Your task to perform on an android device: delete a single message in the gmail app Image 0: 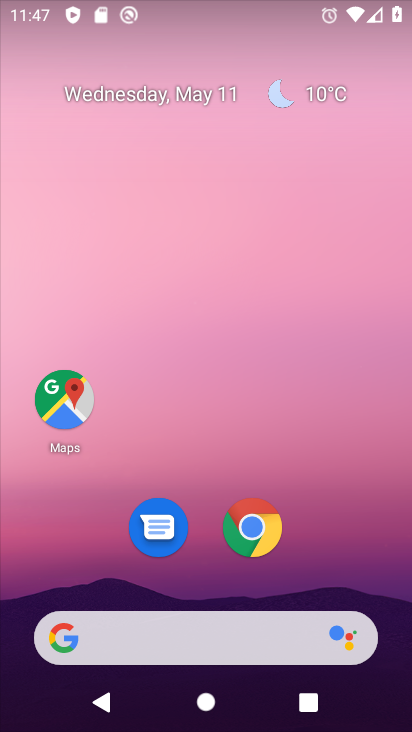
Step 0: drag from (222, 580) to (227, 71)
Your task to perform on an android device: delete a single message in the gmail app Image 1: 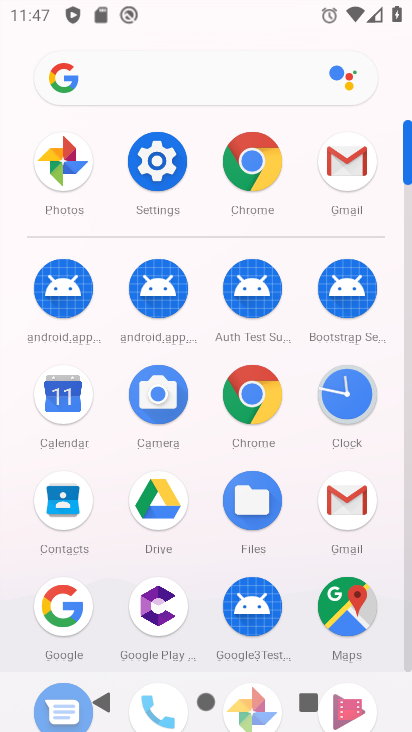
Step 1: click (357, 501)
Your task to perform on an android device: delete a single message in the gmail app Image 2: 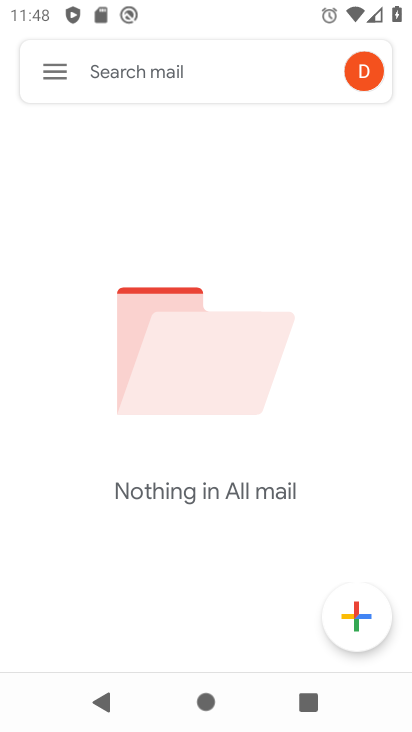
Step 2: click (55, 82)
Your task to perform on an android device: delete a single message in the gmail app Image 3: 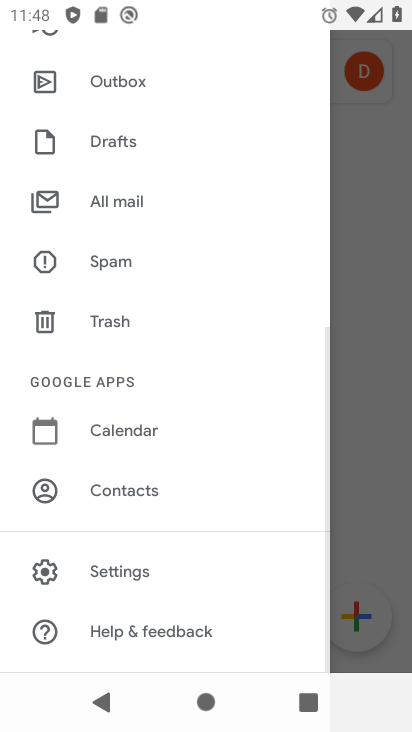
Step 3: task complete